Your task to perform on an android device: Search for pizza restaurants on Maps Image 0: 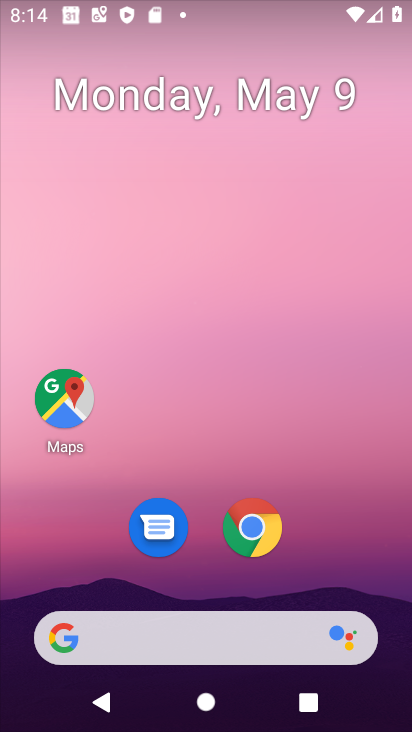
Step 0: press home button
Your task to perform on an android device: Search for pizza restaurants on Maps Image 1: 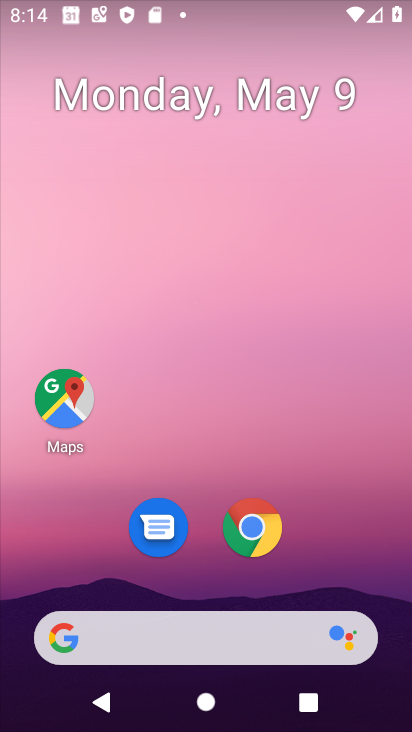
Step 1: click (60, 392)
Your task to perform on an android device: Search for pizza restaurants on Maps Image 2: 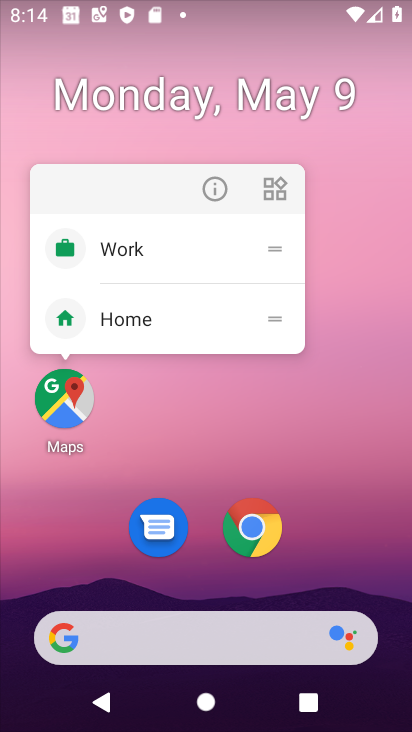
Step 2: click (56, 393)
Your task to perform on an android device: Search for pizza restaurants on Maps Image 3: 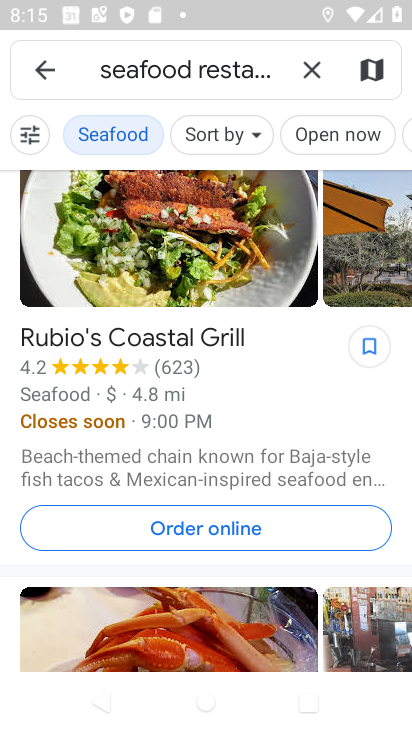
Step 3: click (311, 68)
Your task to perform on an android device: Search for pizza restaurants on Maps Image 4: 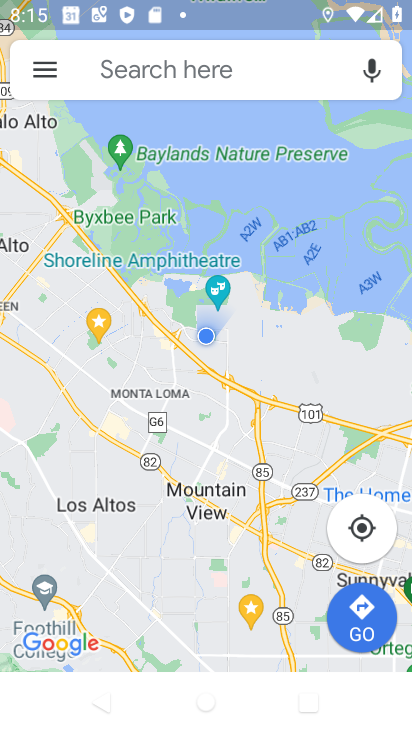
Step 4: click (114, 64)
Your task to perform on an android device: Search for pizza restaurants on Maps Image 5: 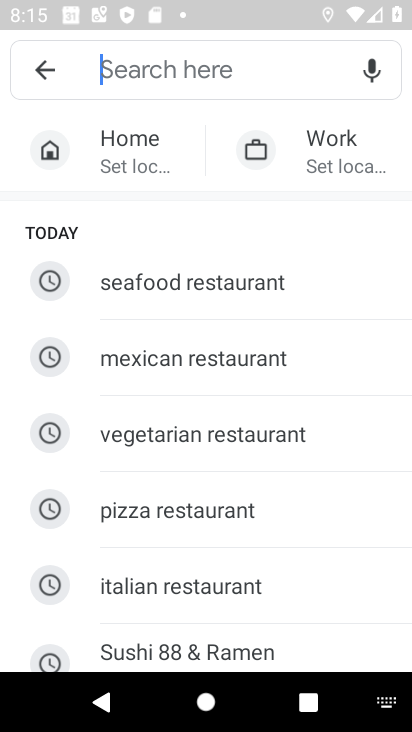
Step 5: type "pizza"
Your task to perform on an android device: Search for pizza restaurants on Maps Image 6: 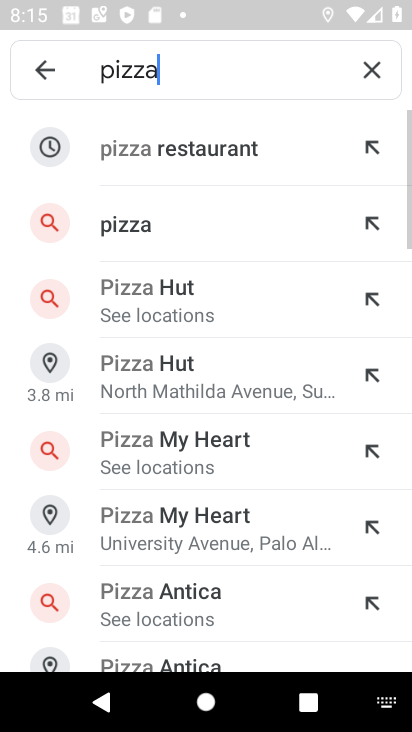
Step 6: click (225, 168)
Your task to perform on an android device: Search for pizza restaurants on Maps Image 7: 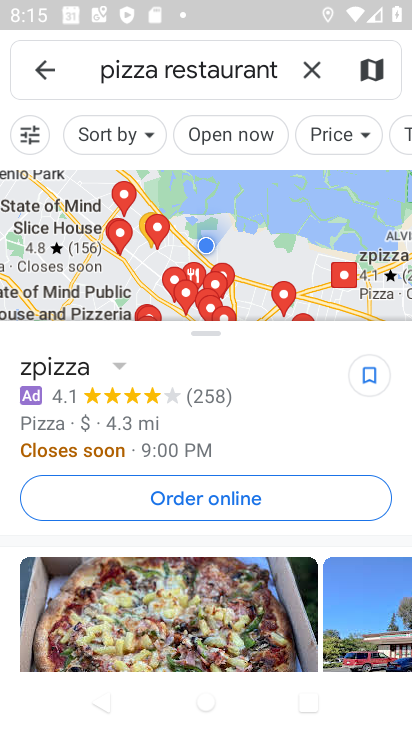
Step 7: task complete